Your task to perform on an android device: turn on improve location accuracy Image 0: 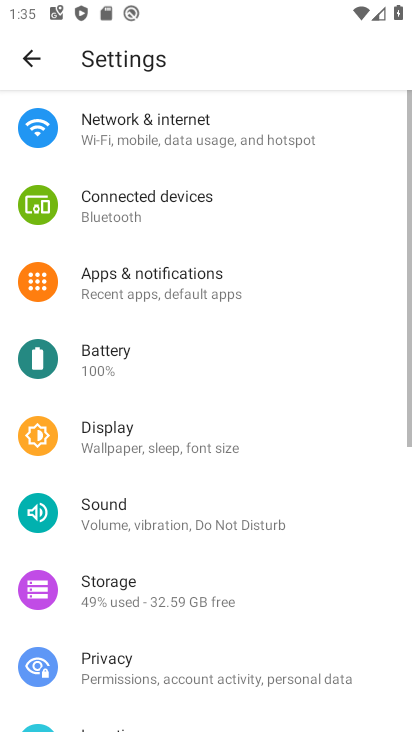
Step 0: press home button
Your task to perform on an android device: turn on improve location accuracy Image 1: 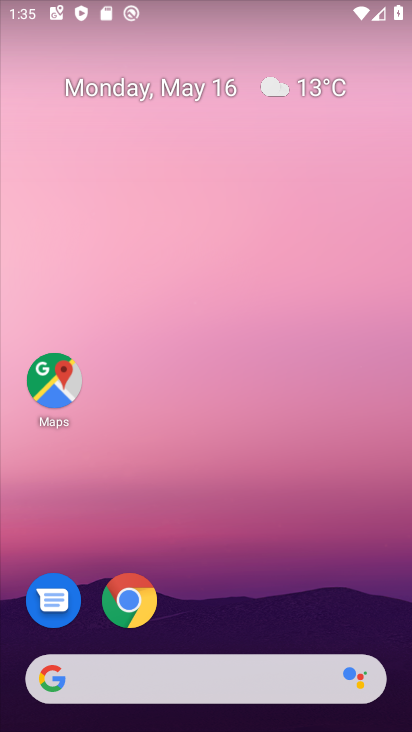
Step 1: drag from (311, 612) to (278, 141)
Your task to perform on an android device: turn on improve location accuracy Image 2: 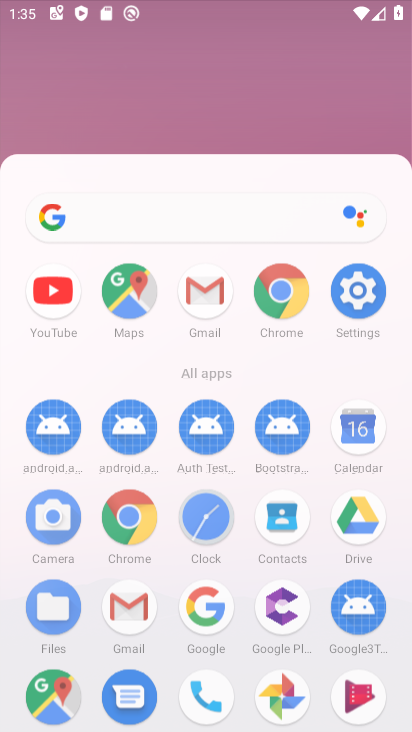
Step 2: click (278, 127)
Your task to perform on an android device: turn on improve location accuracy Image 3: 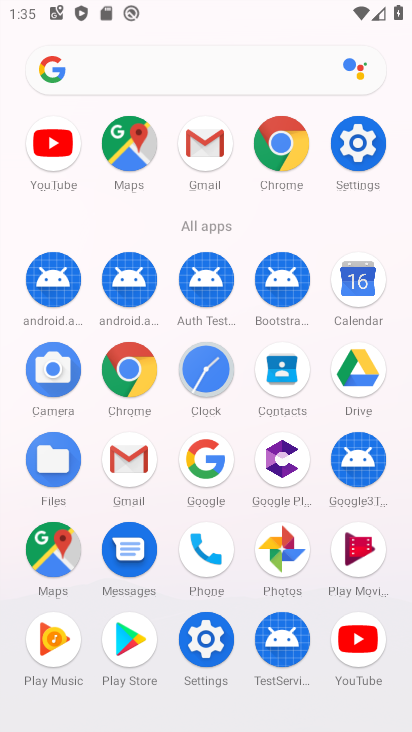
Step 3: click (223, 644)
Your task to perform on an android device: turn on improve location accuracy Image 4: 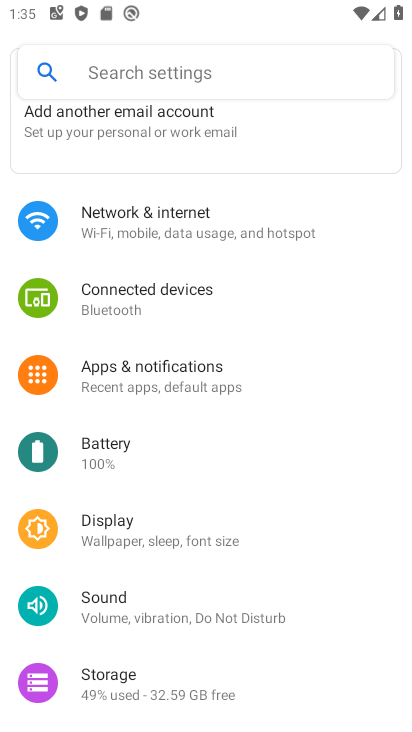
Step 4: drag from (124, 649) to (102, 403)
Your task to perform on an android device: turn on improve location accuracy Image 5: 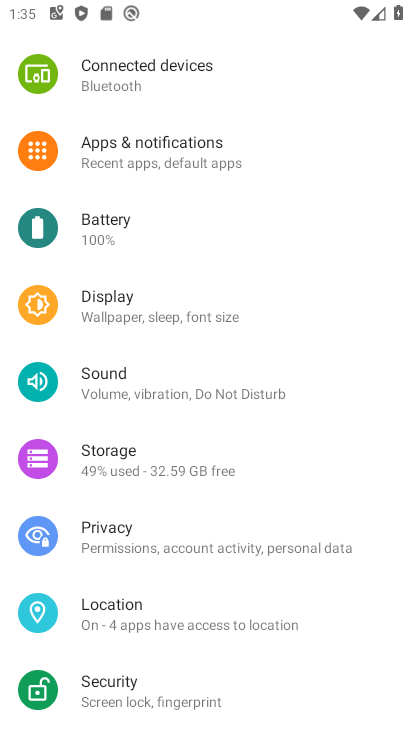
Step 5: click (117, 616)
Your task to perform on an android device: turn on improve location accuracy Image 6: 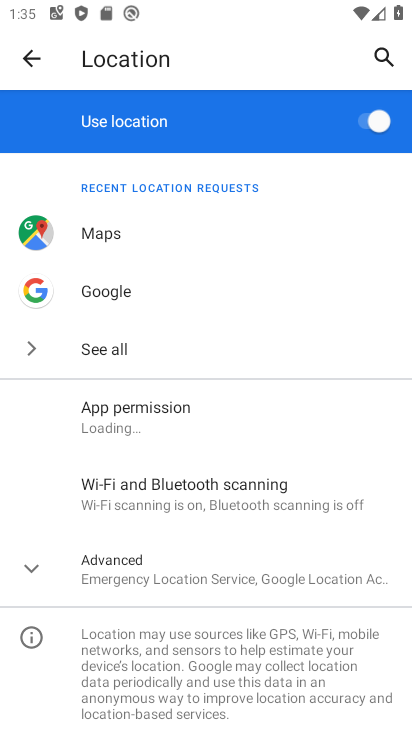
Step 6: click (119, 558)
Your task to perform on an android device: turn on improve location accuracy Image 7: 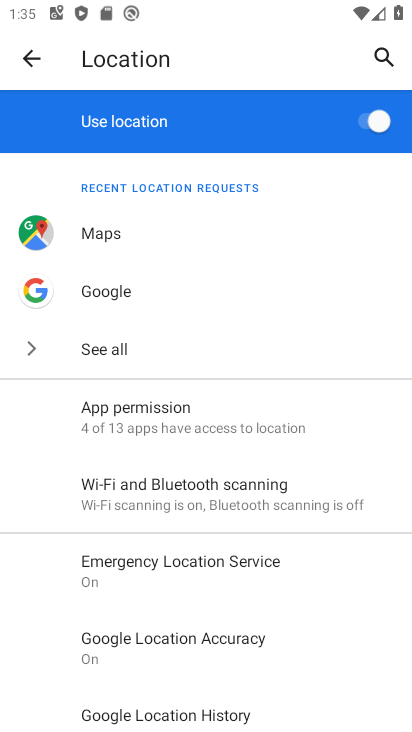
Step 7: click (209, 639)
Your task to perform on an android device: turn on improve location accuracy Image 8: 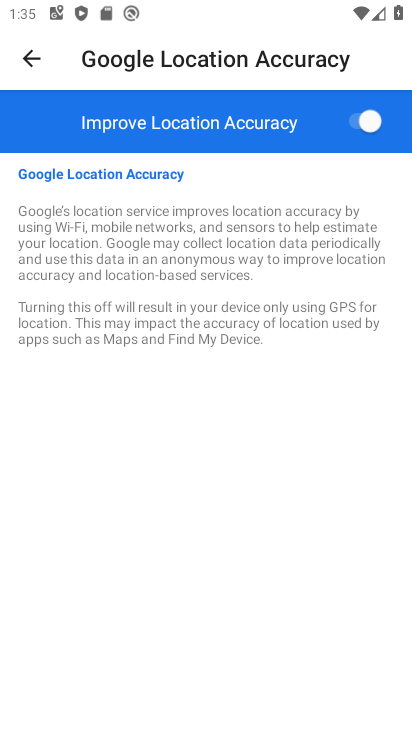
Step 8: task complete